Your task to perform on an android device: Open the calendar and show me this week's events? Image 0: 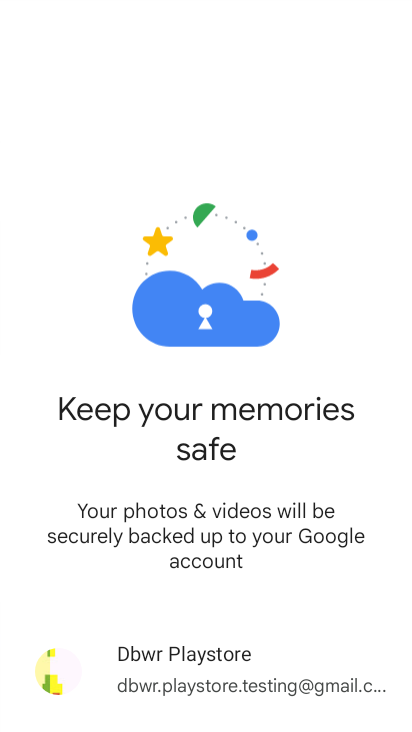
Step 0: click (238, 676)
Your task to perform on an android device: Open the calendar and show me this week's events? Image 1: 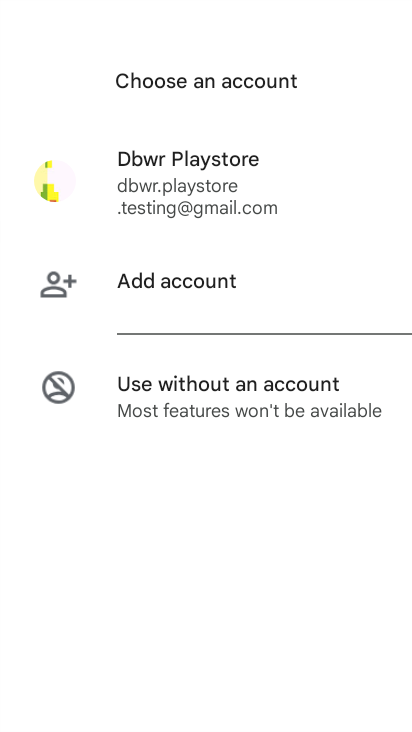
Step 1: click (237, 205)
Your task to perform on an android device: Open the calendar and show me this week's events? Image 2: 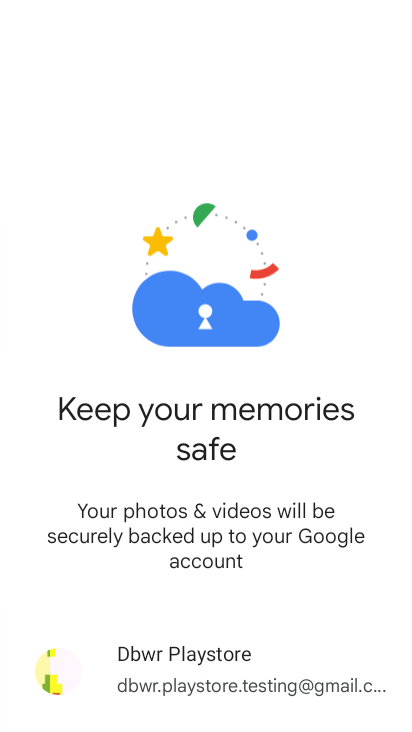
Step 2: task complete